Your task to perform on an android device: turn off data saver in the chrome app Image 0: 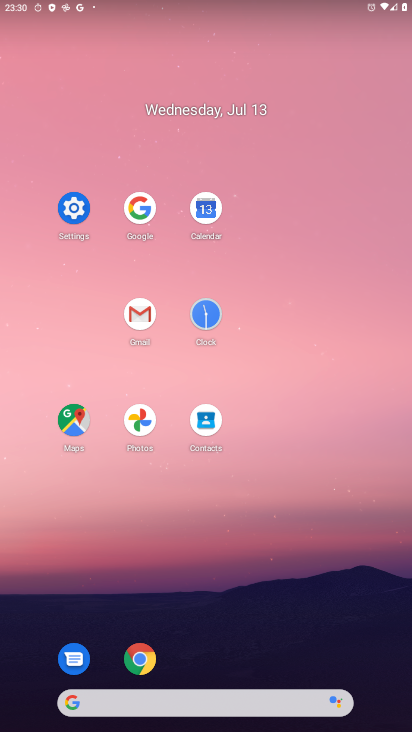
Step 0: click (159, 668)
Your task to perform on an android device: turn off data saver in the chrome app Image 1: 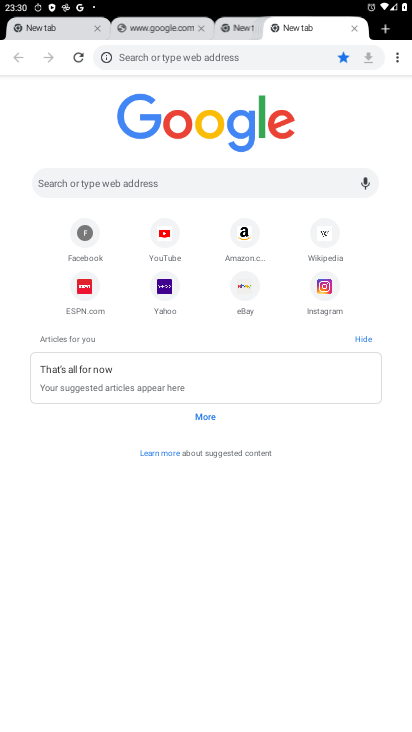
Step 1: click (402, 62)
Your task to perform on an android device: turn off data saver in the chrome app Image 2: 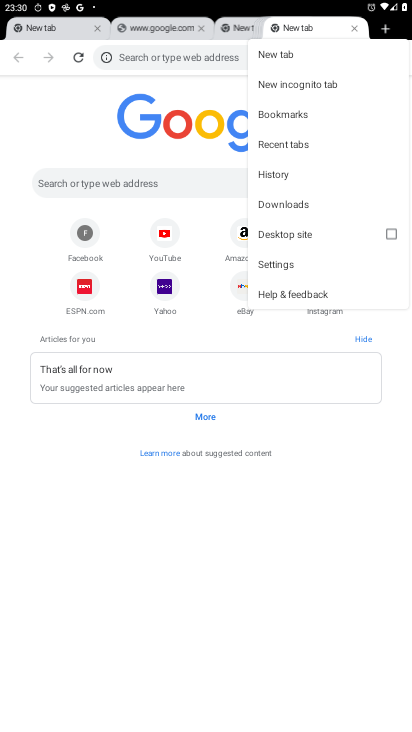
Step 2: click (317, 269)
Your task to perform on an android device: turn off data saver in the chrome app Image 3: 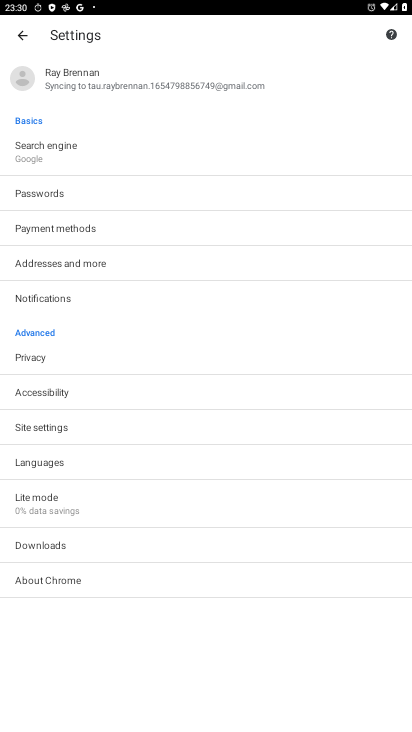
Step 3: click (128, 513)
Your task to perform on an android device: turn off data saver in the chrome app Image 4: 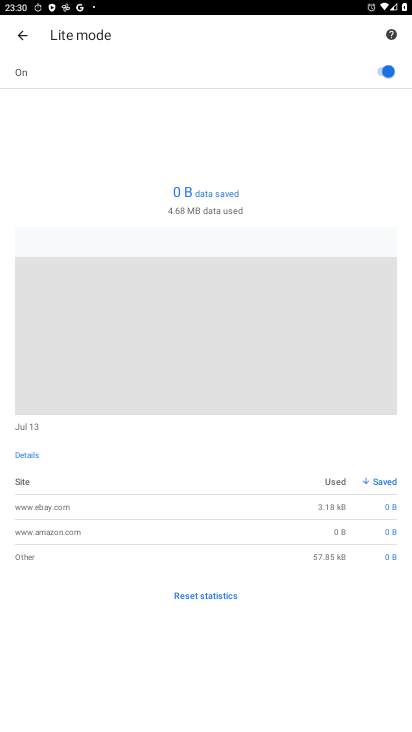
Step 4: task complete